Your task to perform on an android device: Open notification settings Image 0: 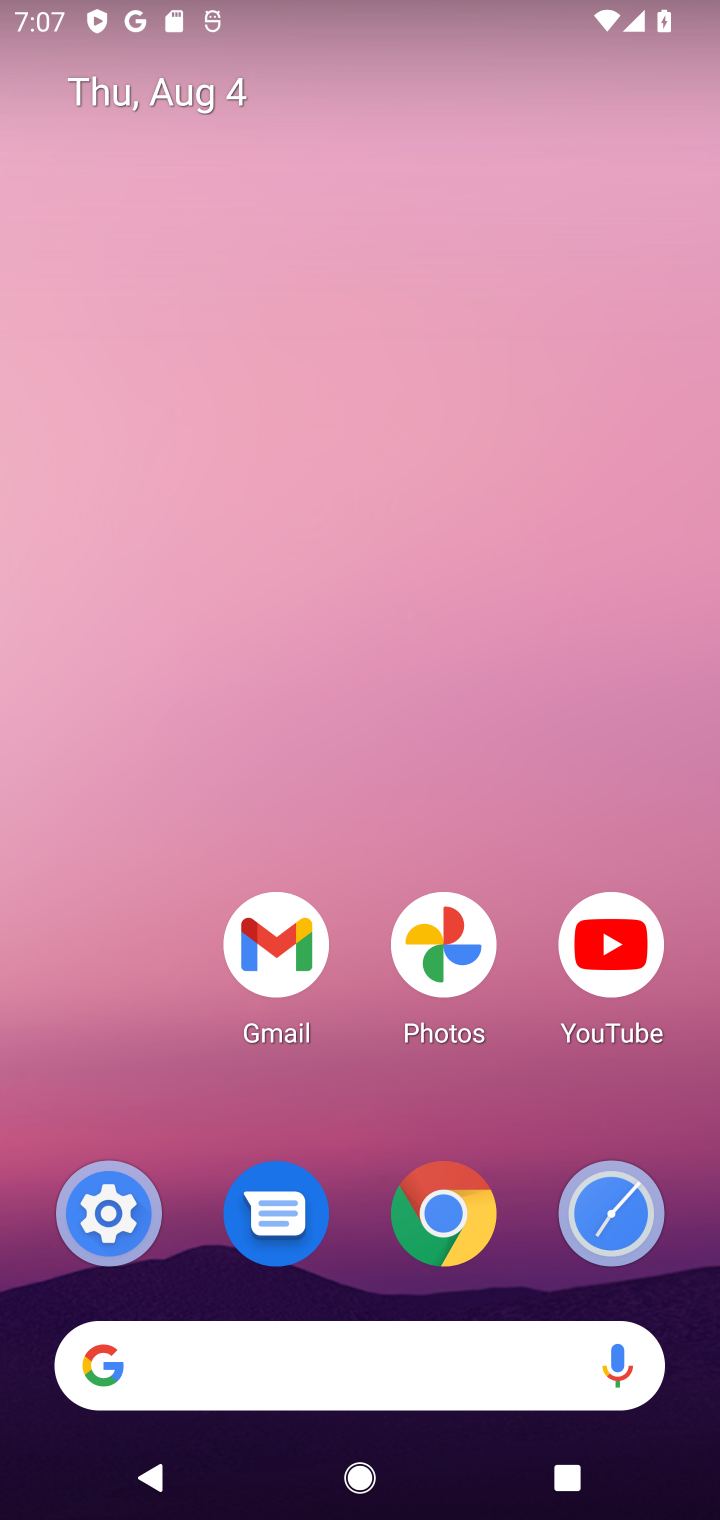
Step 0: click (94, 1219)
Your task to perform on an android device: Open notification settings Image 1: 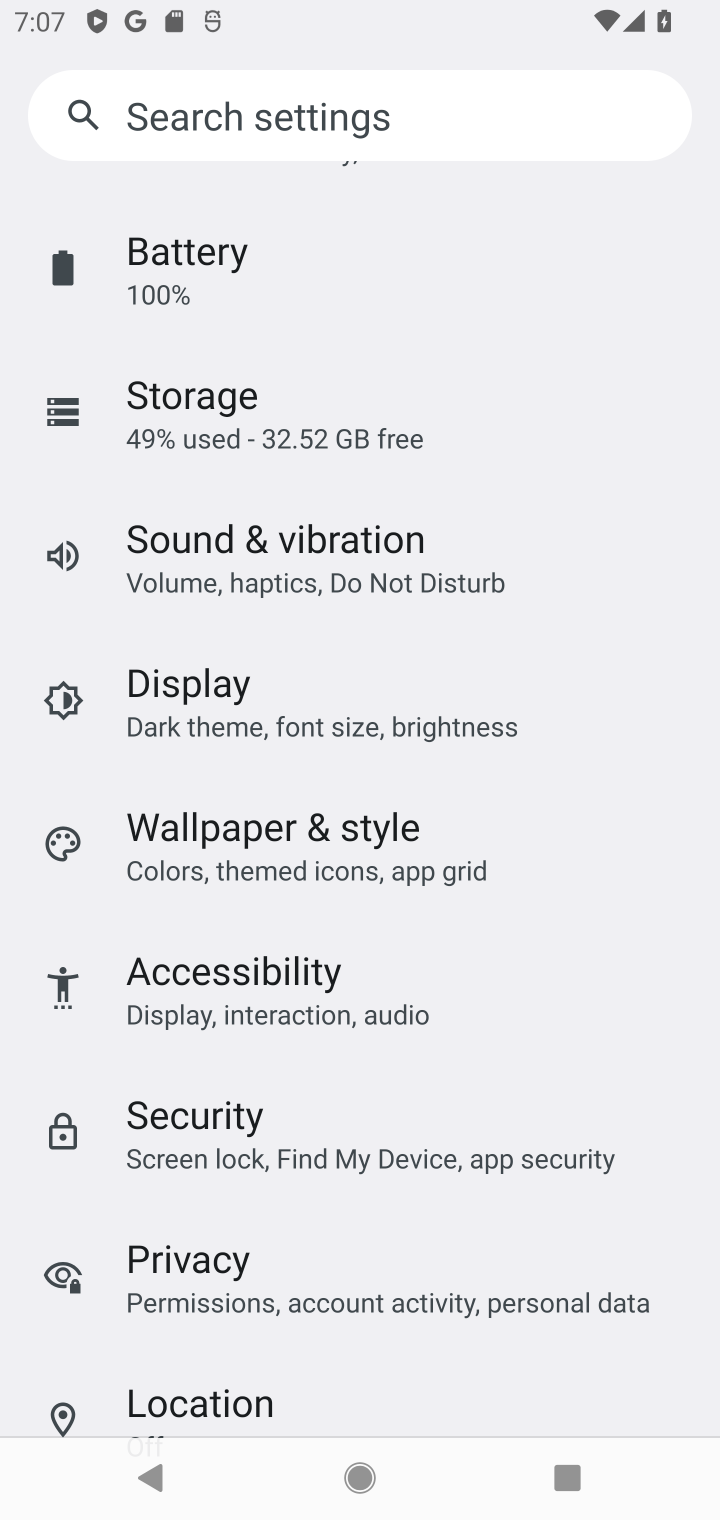
Step 1: drag from (390, 279) to (431, 1368)
Your task to perform on an android device: Open notification settings Image 2: 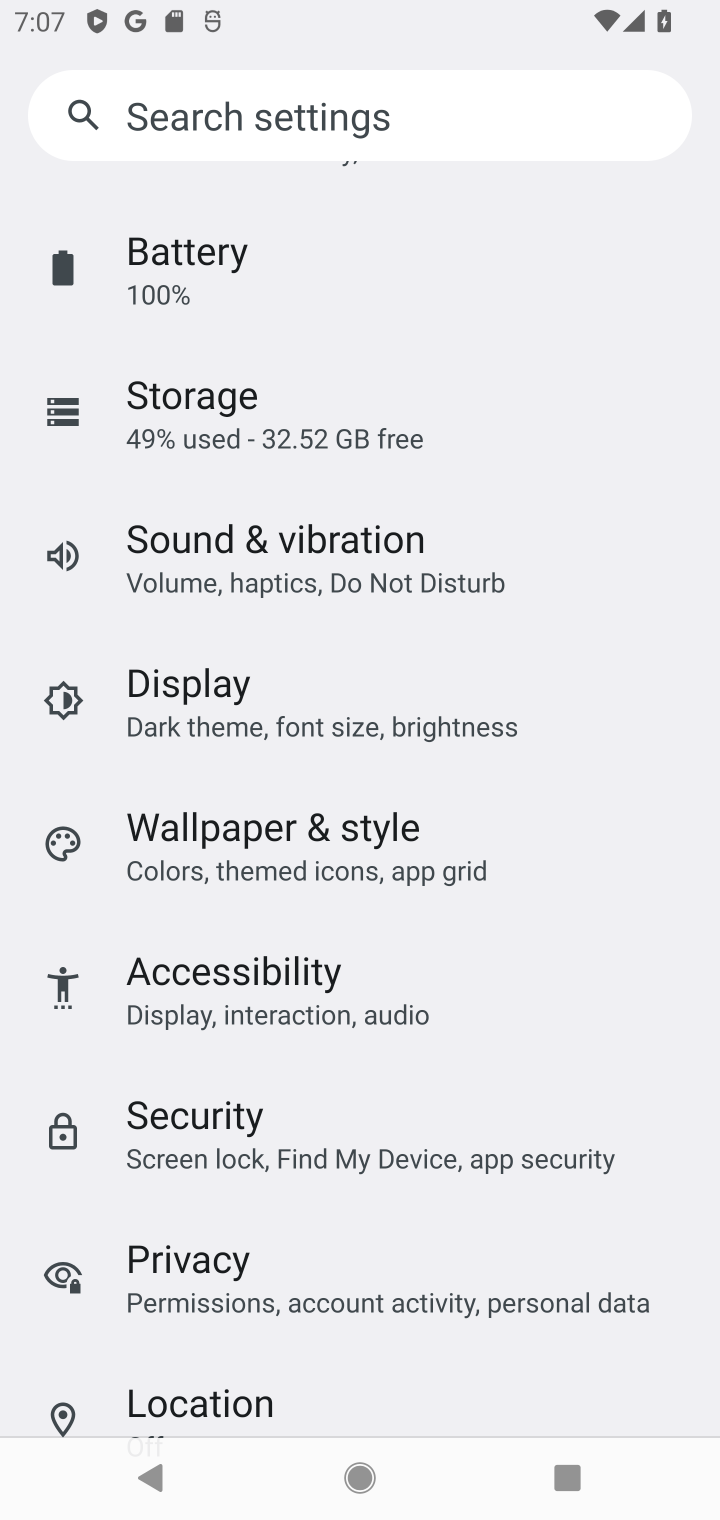
Step 2: drag from (318, 357) to (458, 818)
Your task to perform on an android device: Open notification settings Image 3: 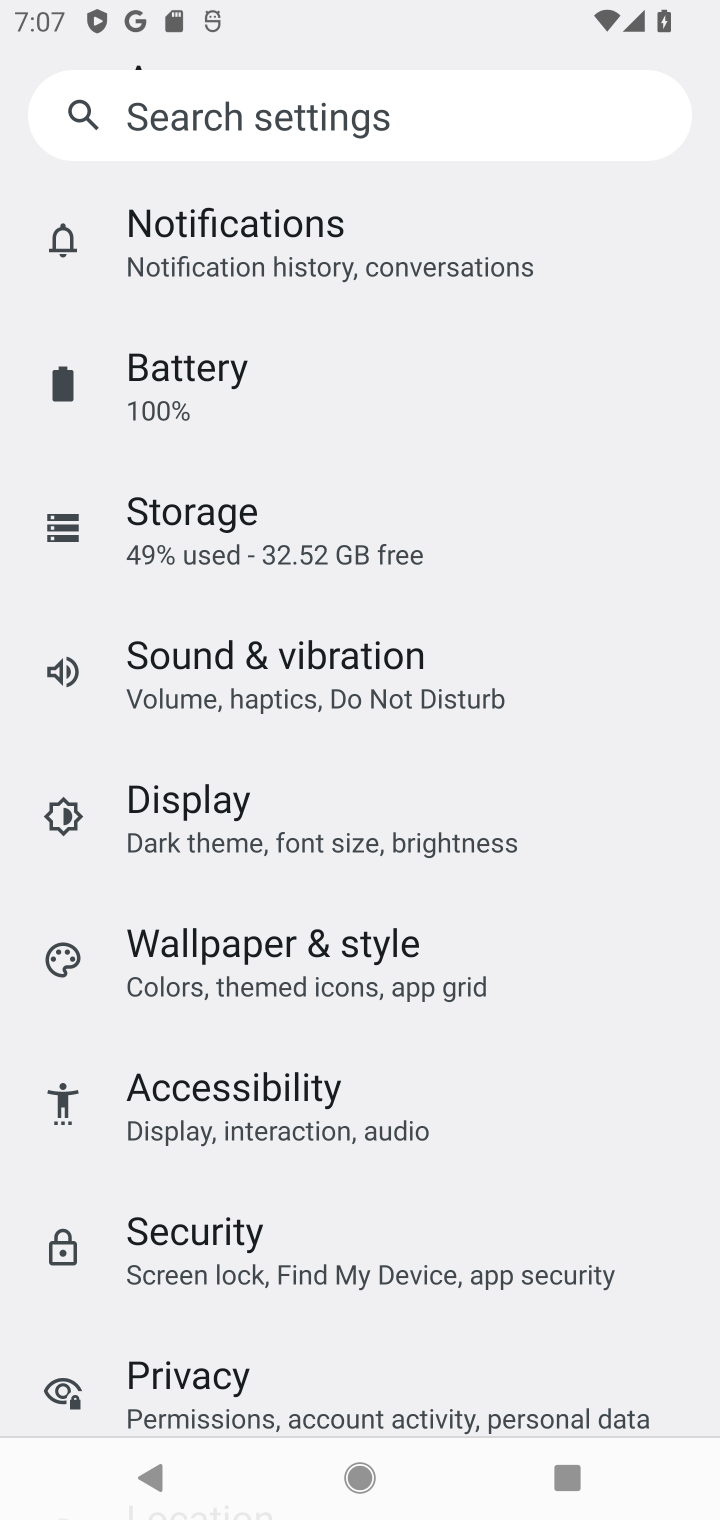
Step 3: click (477, 248)
Your task to perform on an android device: Open notification settings Image 4: 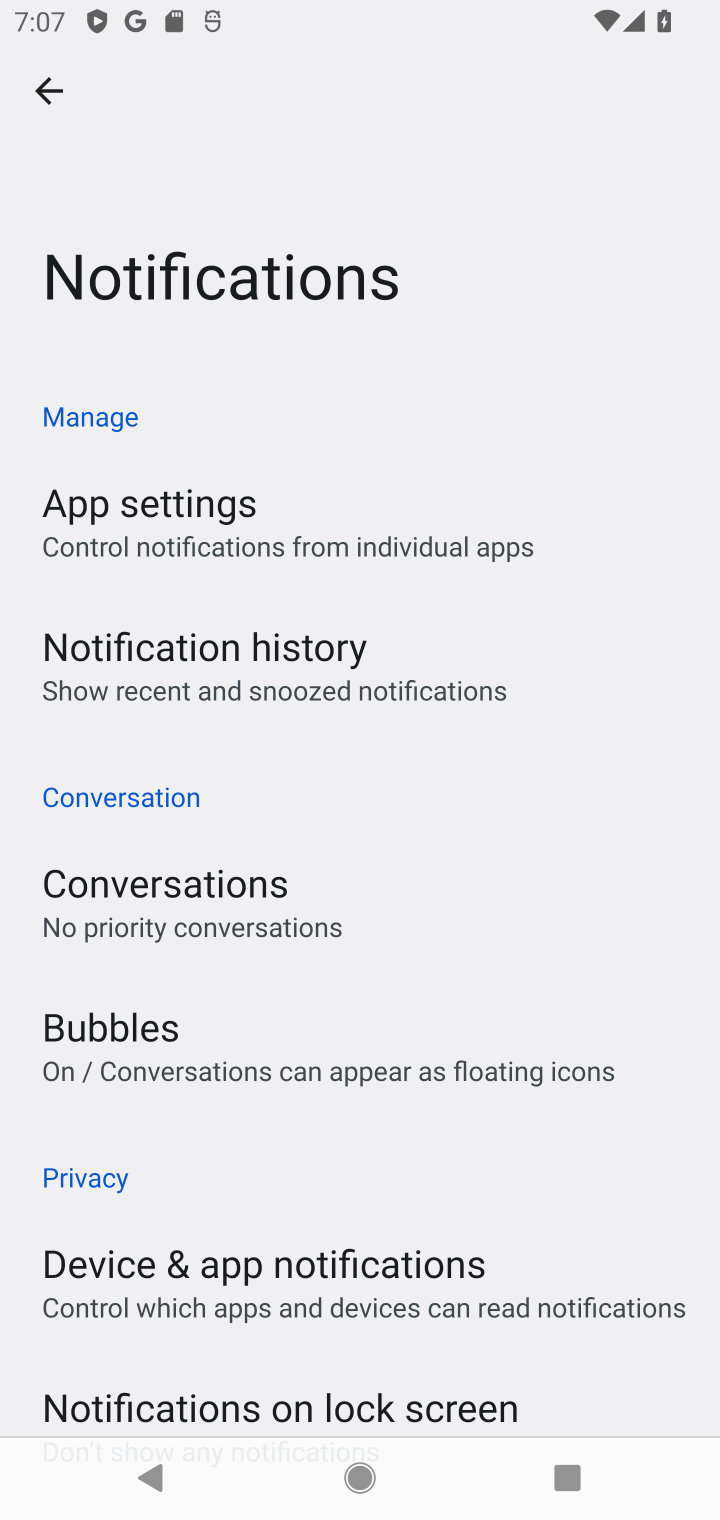
Step 4: task complete